Your task to perform on an android device: change notifications settings Image 0: 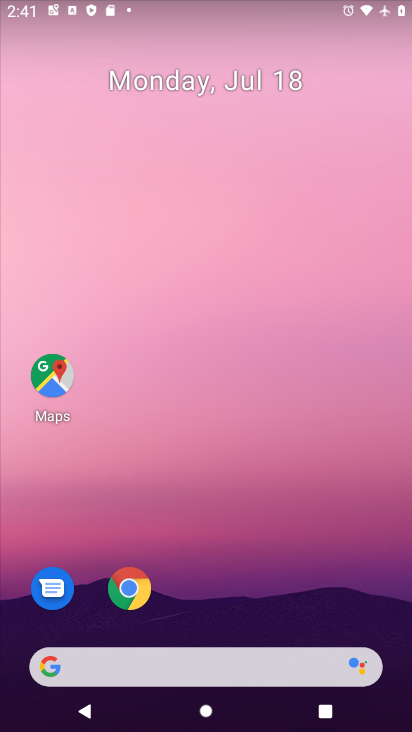
Step 0: drag from (223, 616) to (276, 117)
Your task to perform on an android device: change notifications settings Image 1: 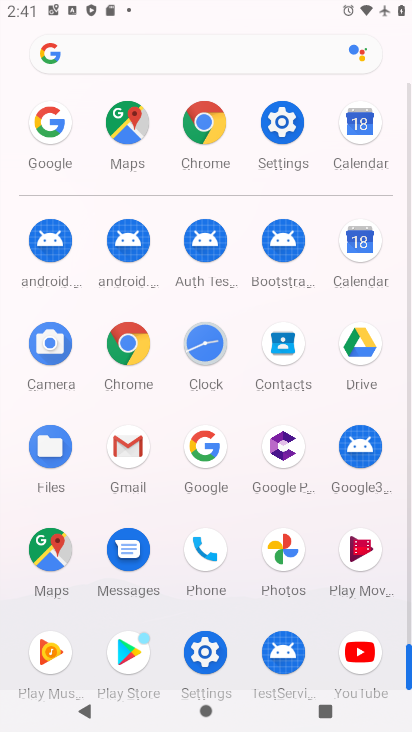
Step 1: click (272, 144)
Your task to perform on an android device: change notifications settings Image 2: 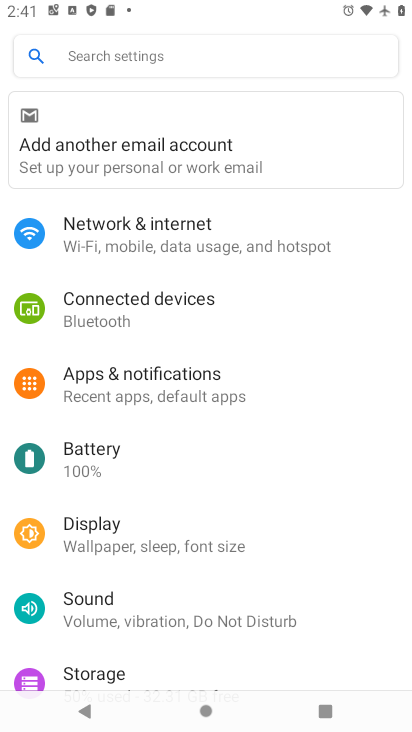
Step 2: click (191, 389)
Your task to perform on an android device: change notifications settings Image 3: 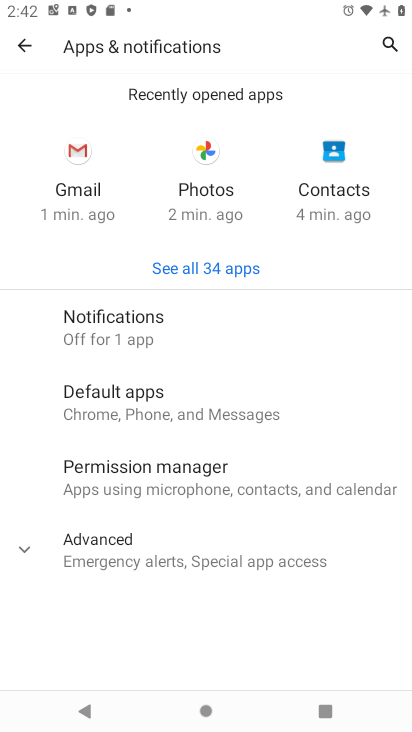
Step 3: click (176, 336)
Your task to perform on an android device: change notifications settings Image 4: 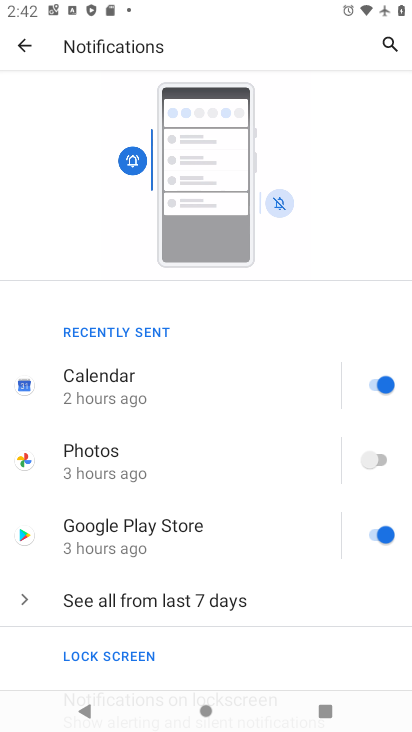
Step 4: click (406, 448)
Your task to perform on an android device: change notifications settings Image 5: 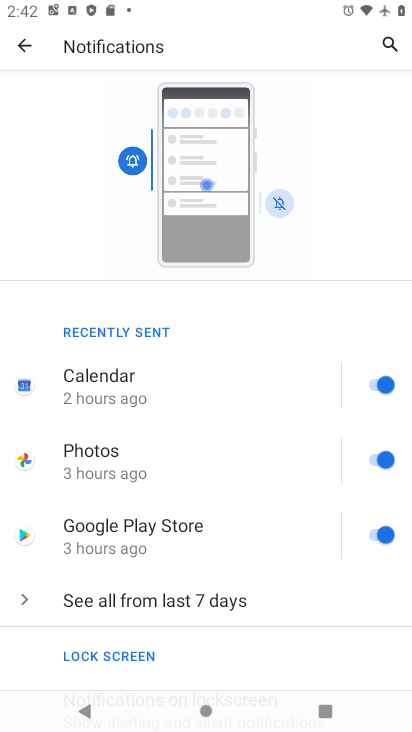
Step 5: click (376, 472)
Your task to perform on an android device: change notifications settings Image 6: 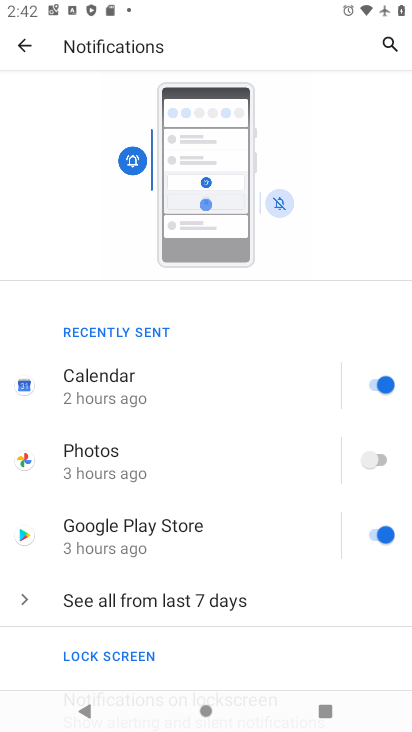
Step 6: click (379, 464)
Your task to perform on an android device: change notifications settings Image 7: 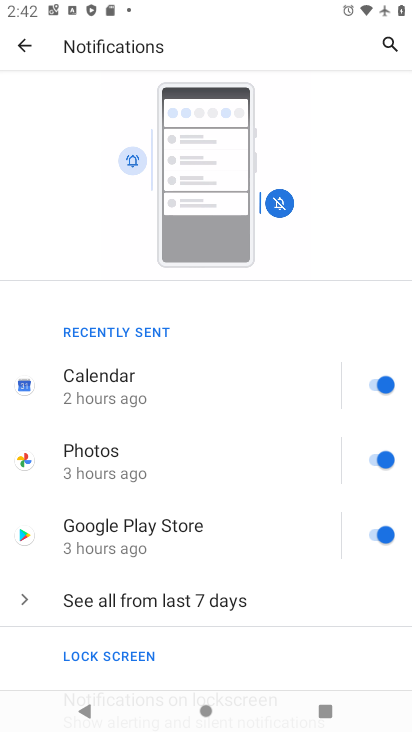
Step 7: task complete